Your task to perform on an android device: Open Chrome and go to settings Image 0: 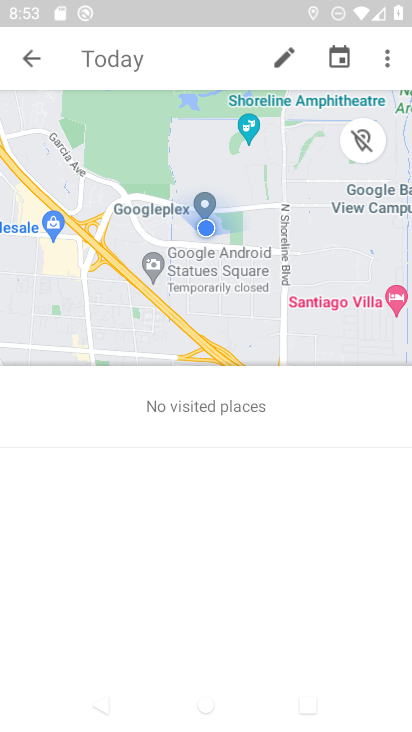
Step 0: press home button
Your task to perform on an android device: Open Chrome and go to settings Image 1: 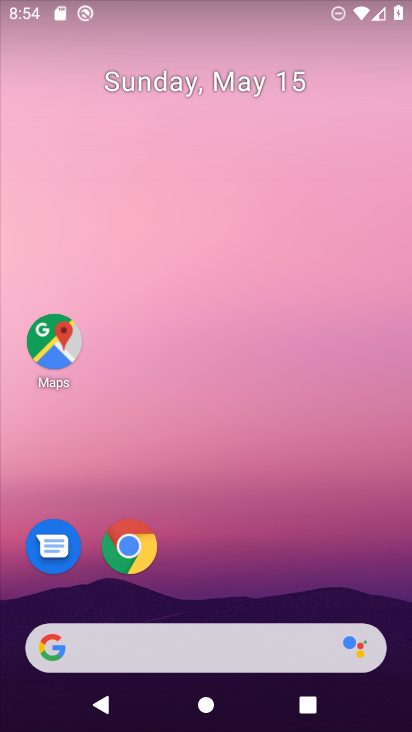
Step 1: click (136, 539)
Your task to perform on an android device: Open Chrome and go to settings Image 2: 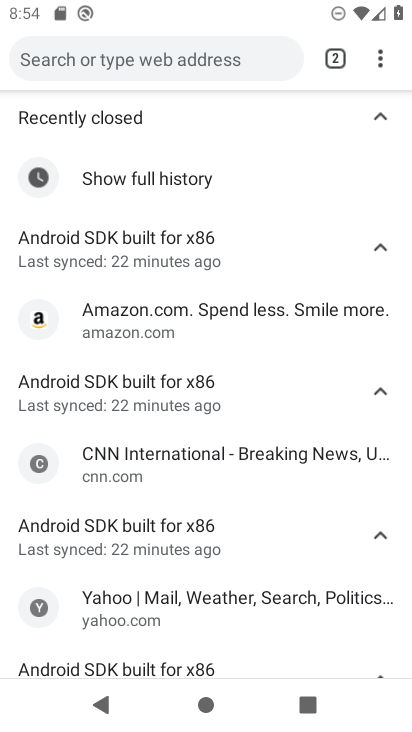
Step 2: click (376, 55)
Your task to perform on an android device: Open Chrome and go to settings Image 3: 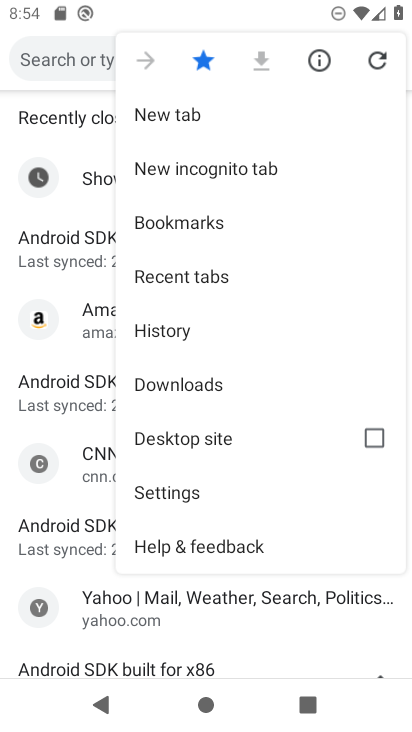
Step 3: click (195, 493)
Your task to perform on an android device: Open Chrome and go to settings Image 4: 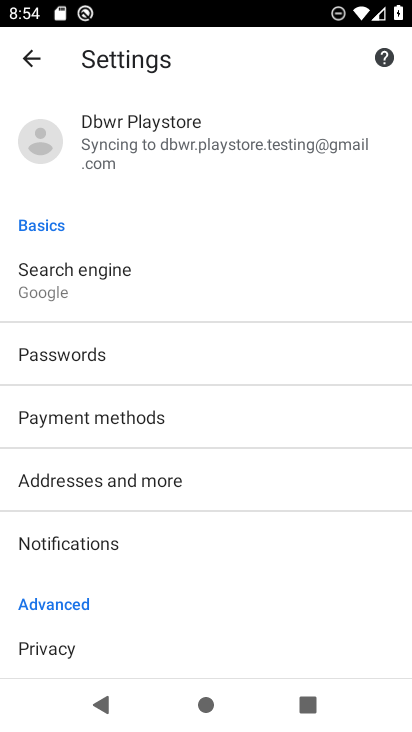
Step 4: task complete